Your task to perform on an android device: Go to wifi settings Image 0: 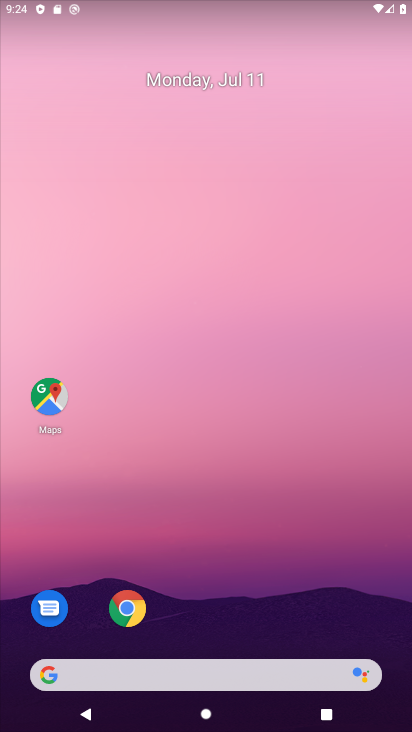
Step 0: drag from (401, 648) to (308, 33)
Your task to perform on an android device: Go to wifi settings Image 1: 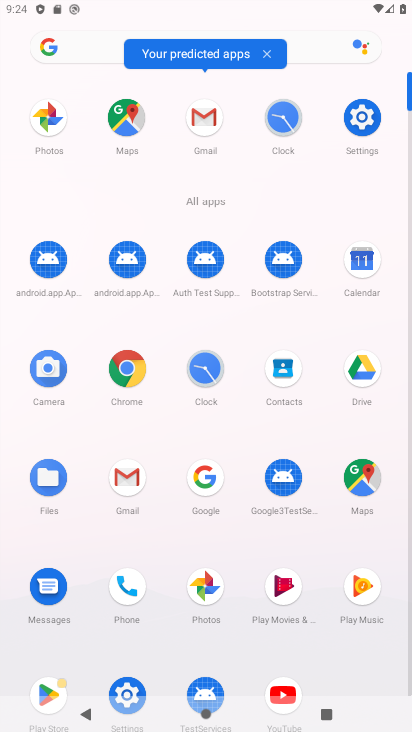
Step 1: drag from (357, 123) to (213, 383)
Your task to perform on an android device: Go to wifi settings Image 2: 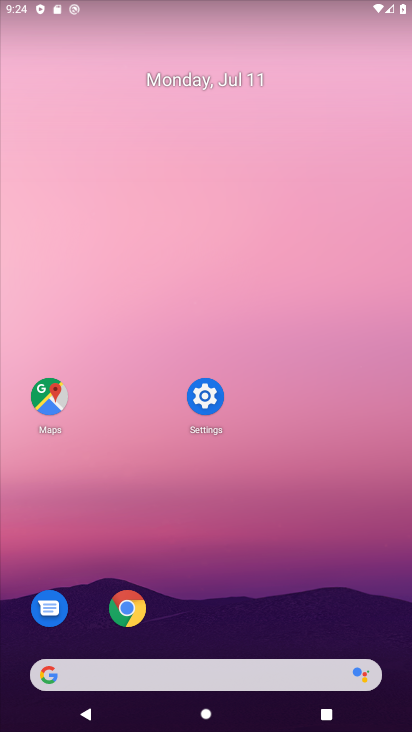
Step 2: click (201, 392)
Your task to perform on an android device: Go to wifi settings Image 3: 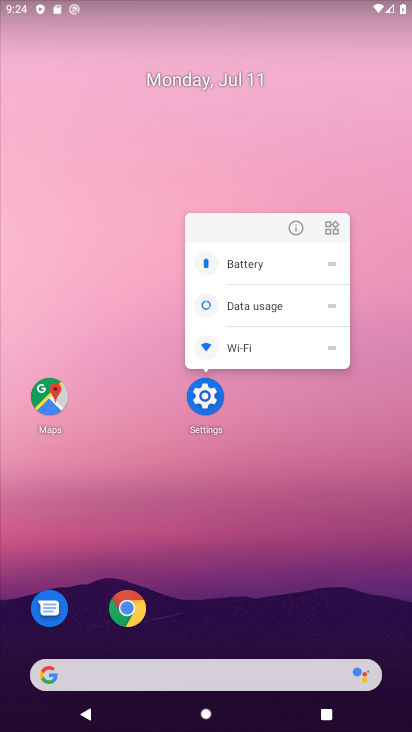
Step 3: click (201, 392)
Your task to perform on an android device: Go to wifi settings Image 4: 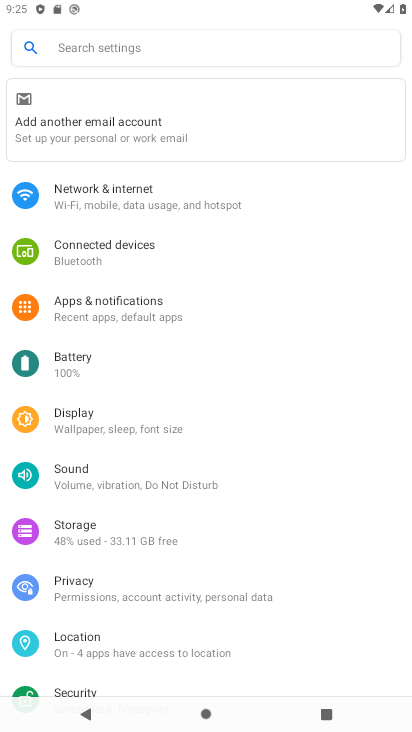
Step 4: drag from (180, 210) to (198, 485)
Your task to perform on an android device: Go to wifi settings Image 5: 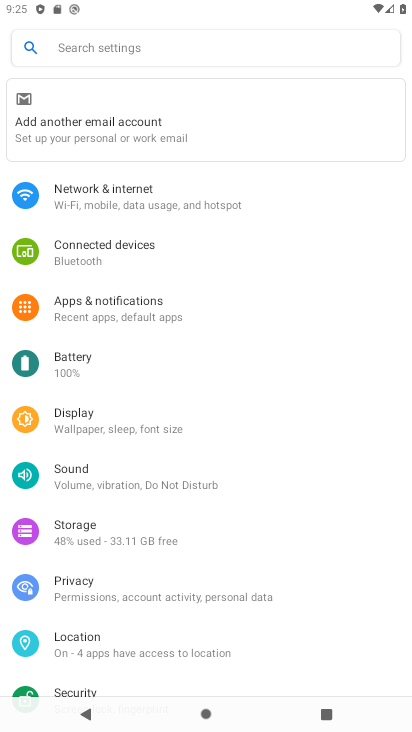
Step 5: click (74, 192)
Your task to perform on an android device: Go to wifi settings Image 6: 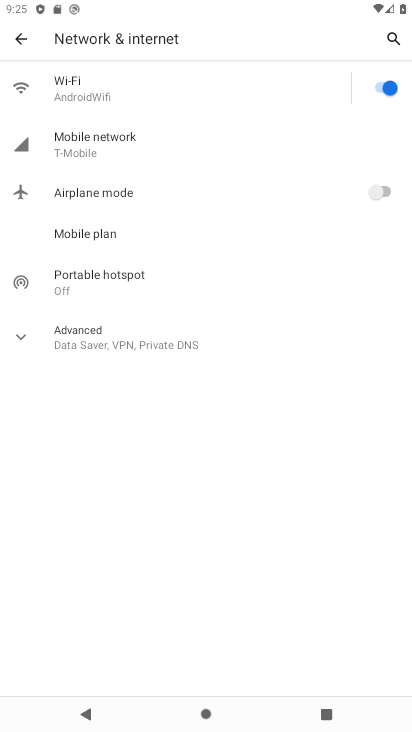
Step 6: click (264, 77)
Your task to perform on an android device: Go to wifi settings Image 7: 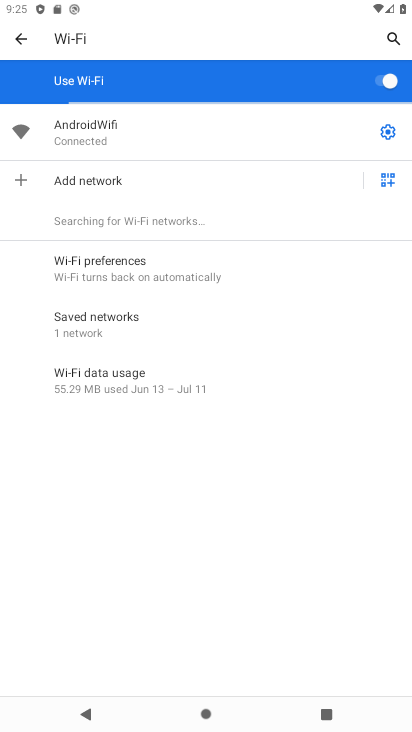
Step 7: click (389, 129)
Your task to perform on an android device: Go to wifi settings Image 8: 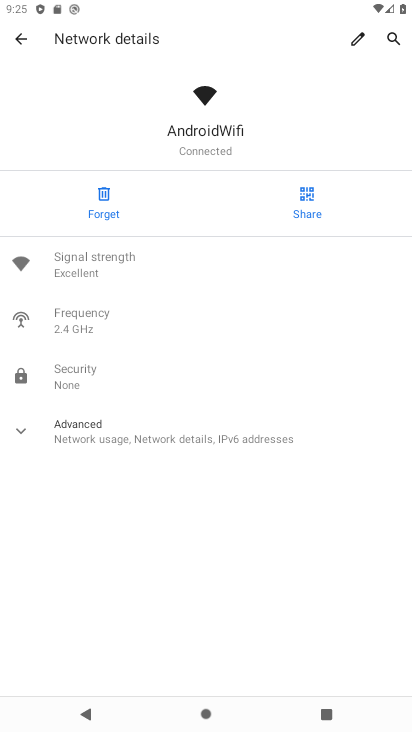
Step 8: click (27, 427)
Your task to perform on an android device: Go to wifi settings Image 9: 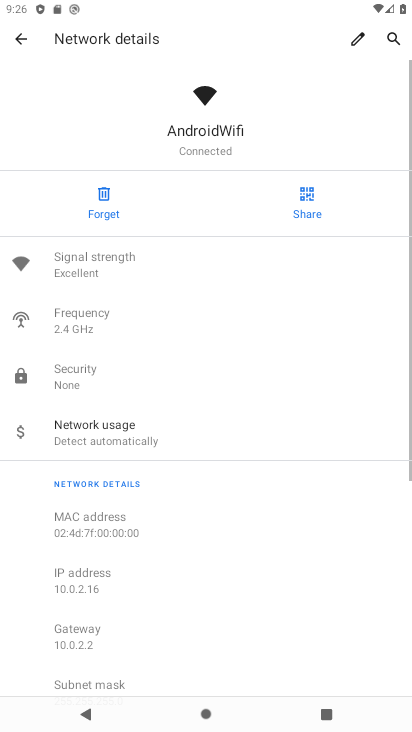
Step 9: task complete